Your task to perform on an android device: turn off data saver in the chrome app Image 0: 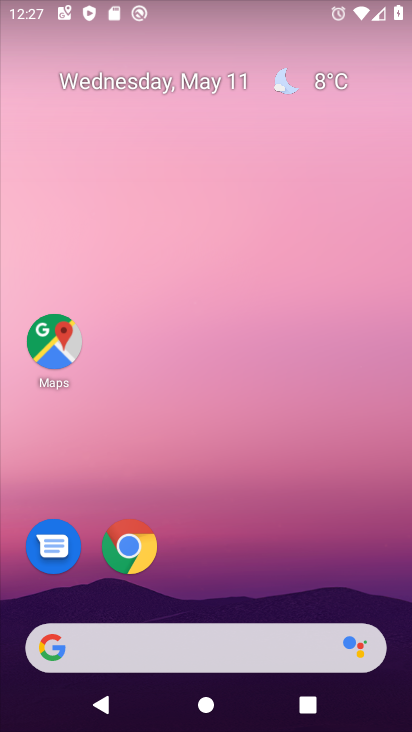
Step 0: drag from (208, 643) to (348, 155)
Your task to perform on an android device: turn off data saver in the chrome app Image 1: 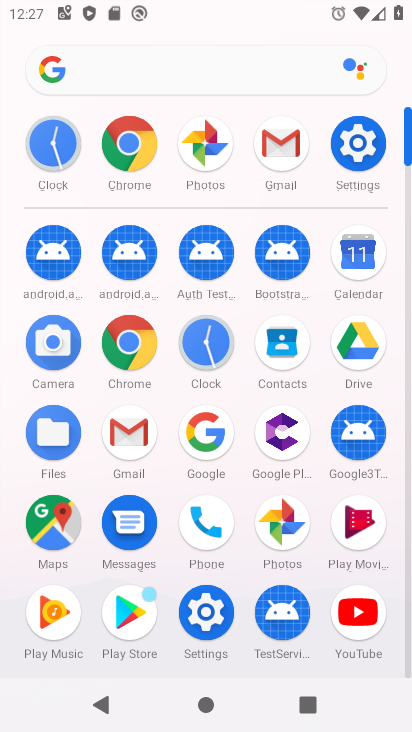
Step 1: click (131, 144)
Your task to perform on an android device: turn off data saver in the chrome app Image 2: 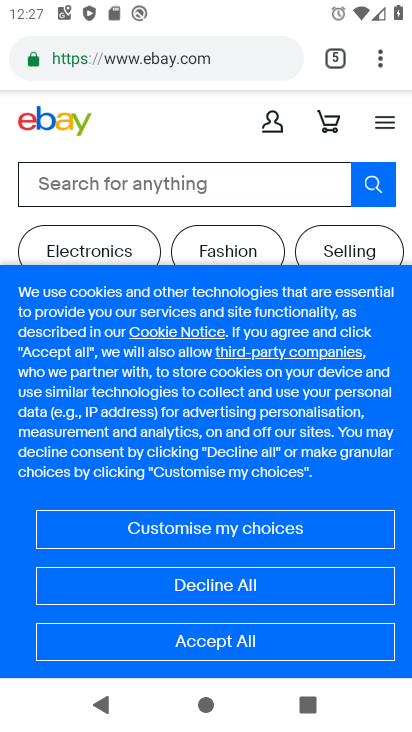
Step 2: drag from (380, 67) to (217, 580)
Your task to perform on an android device: turn off data saver in the chrome app Image 3: 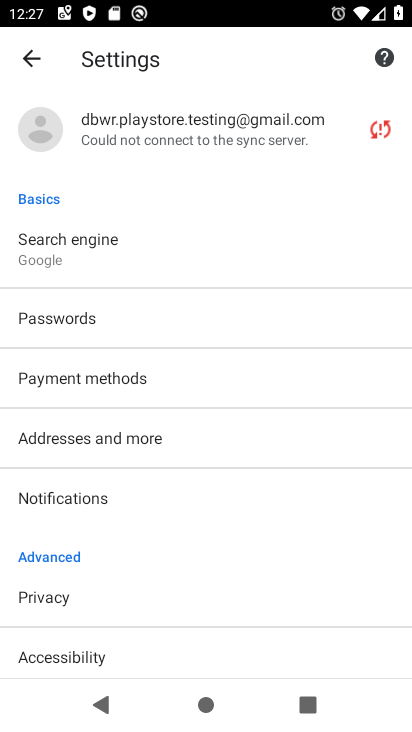
Step 3: drag from (136, 662) to (321, 21)
Your task to perform on an android device: turn off data saver in the chrome app Image 4: 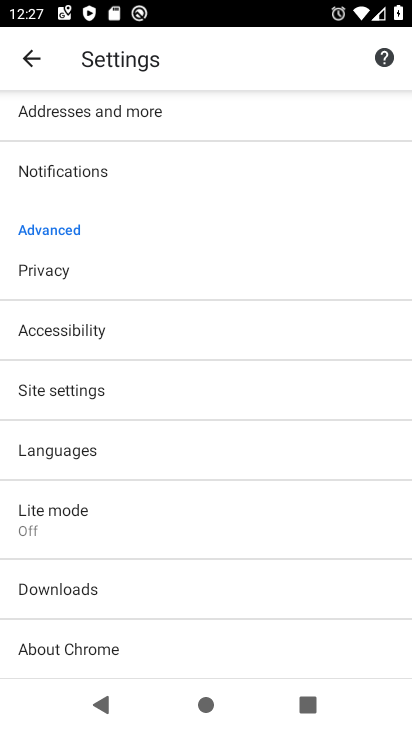
Step 4: click (94, 512)
Your task to perform on an android device: turn off data saver in the chrome app Image 5: 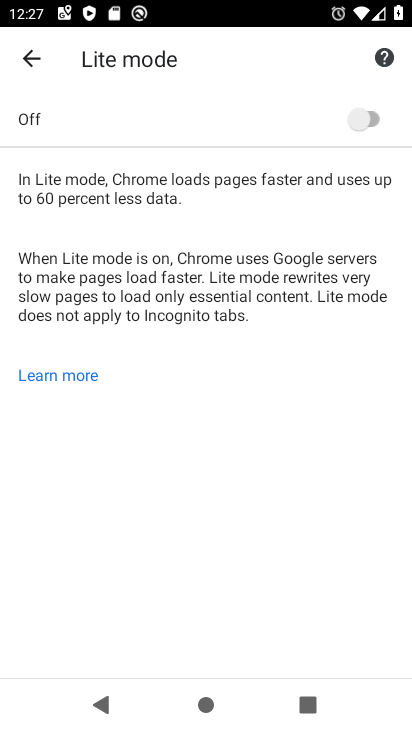
Step 5: task complete